Your task to perform on an android device: delete a single message in the gmail app Image 0: 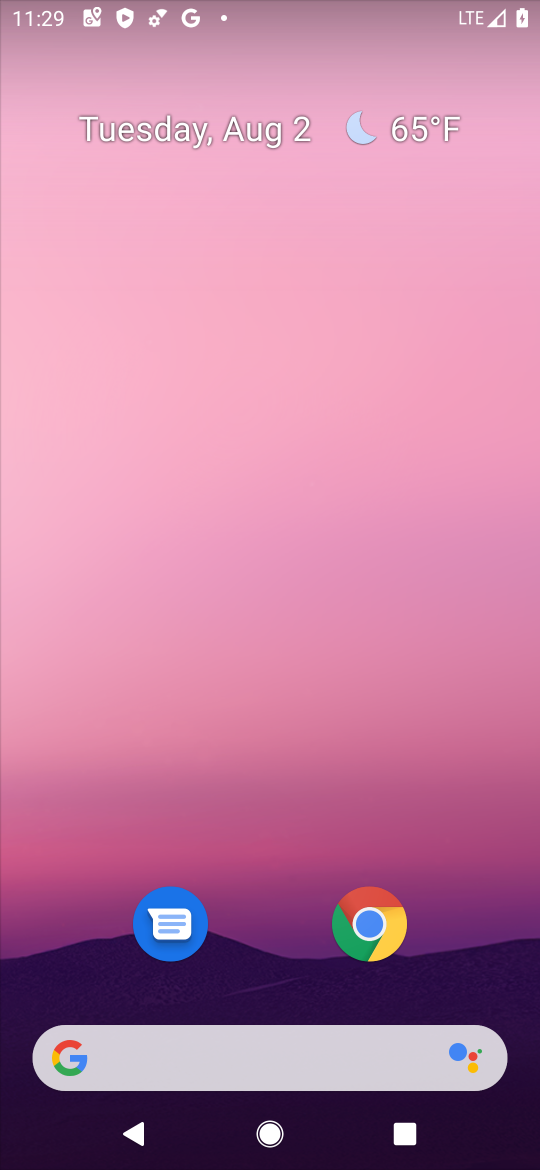
Step 0: drag from (289, 722) to (365, 268)
Your task to perform on an android device: delete a single message in the gmail app Image 1: 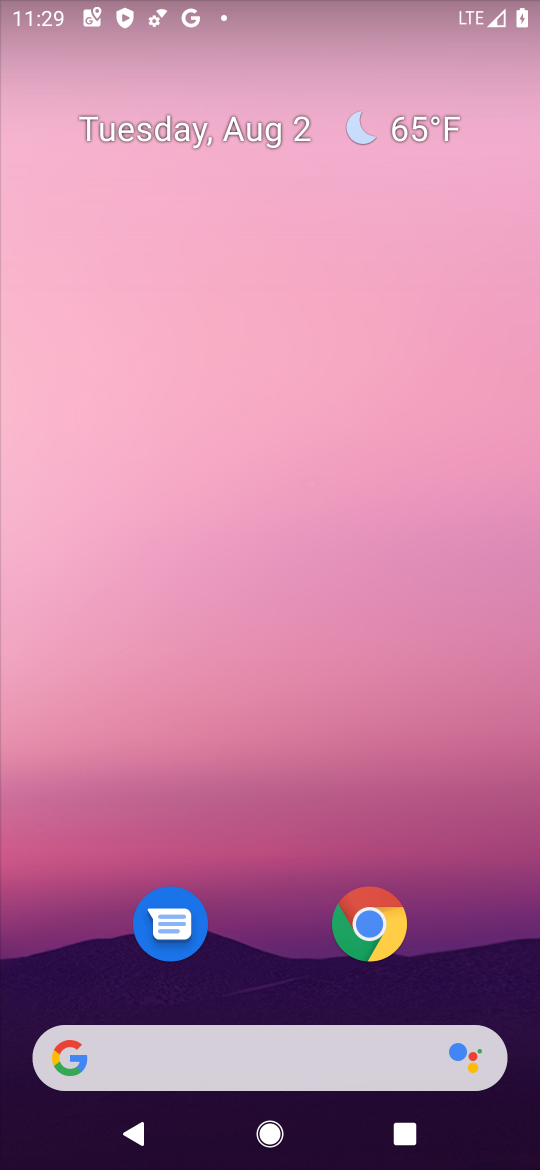
Step 1: drag from (298, 923) to (360, 145)
Your task to perform on an android device: delete a single message in the gmail app Image 2: 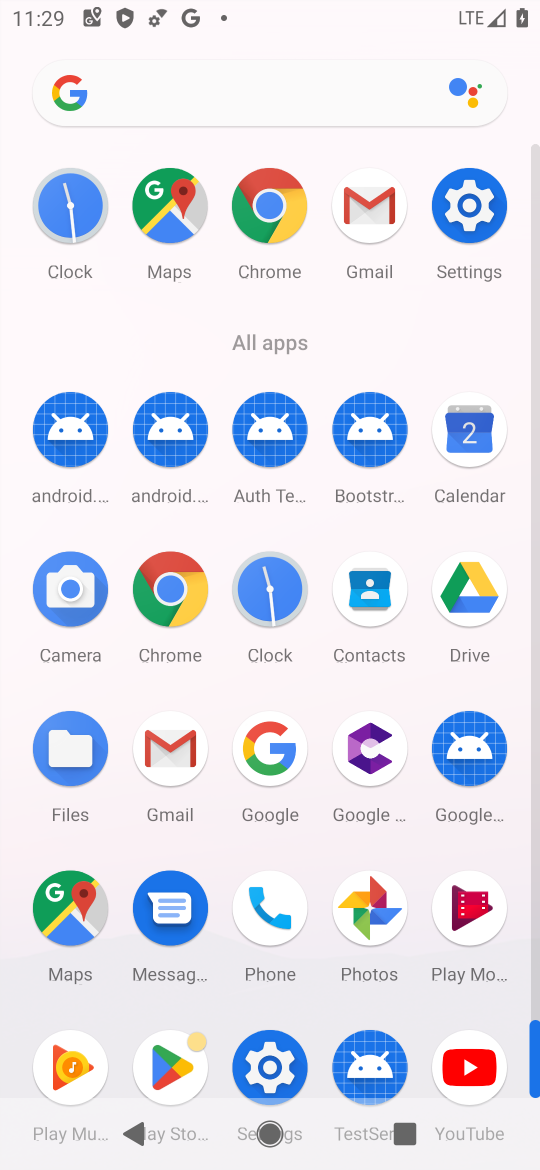
Step 2: click (144, 757)
Your task to perform on an android device: delete a single message in the gmail app Image 3: 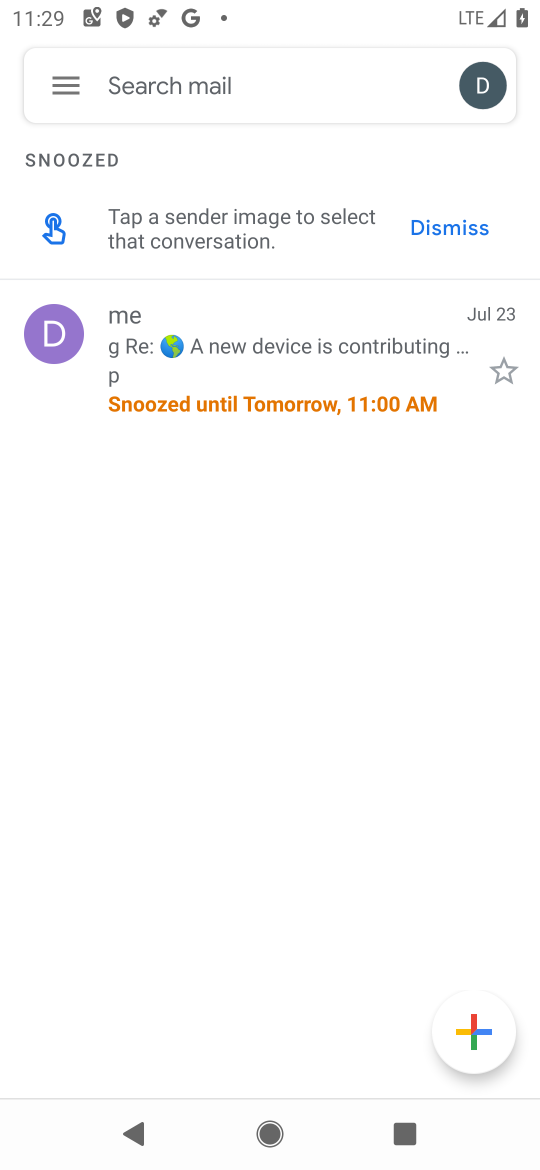
Step 3: click (271, 335)
Your task to perform on an android device: delete a single message in the gmail app Image 4: 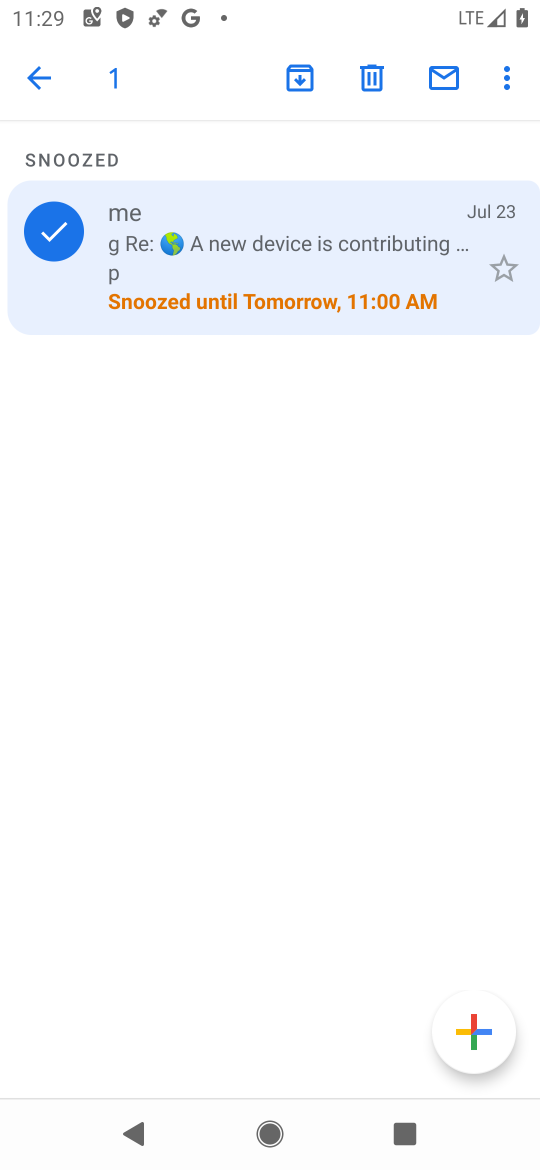
Step 4: click (371, 76)
Your task to perform on an android device: delete a single message in the gmail app Image 5: 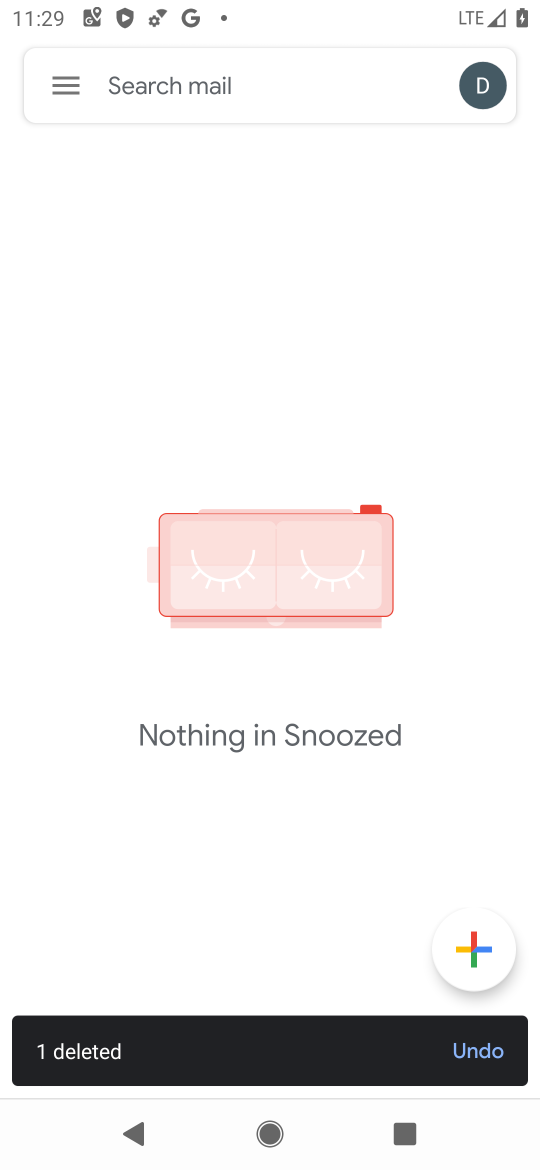
Step 5: click (38, 76)
Your task to perform on an android device: delete a single message in the gmail app Image 6: 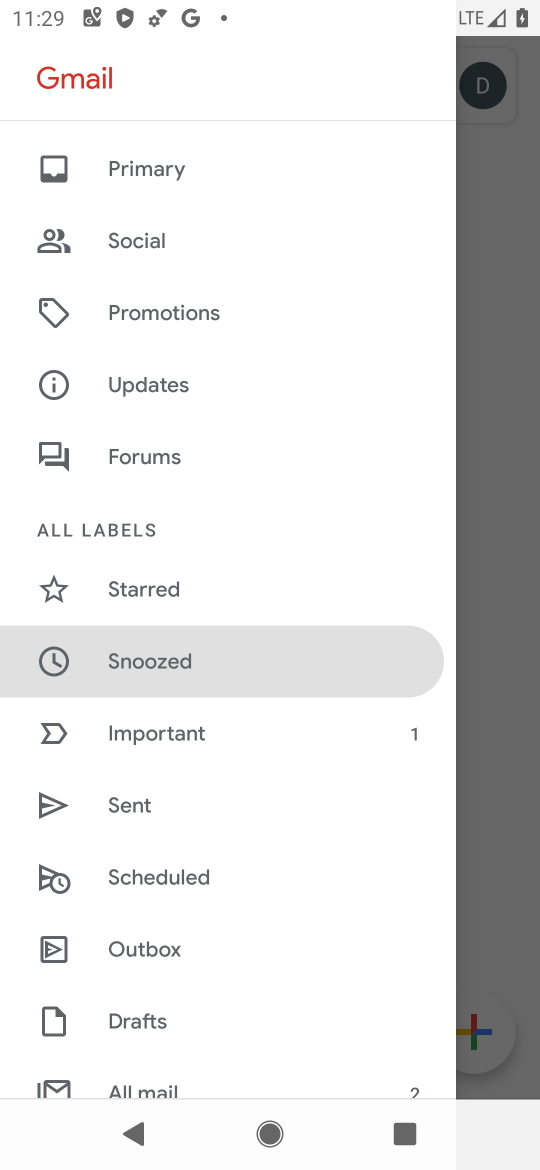
Step 6: drag from (159, 969) to (235, 593)
Your task to perform on an android device: delete a single message in the gmail app Image 7: 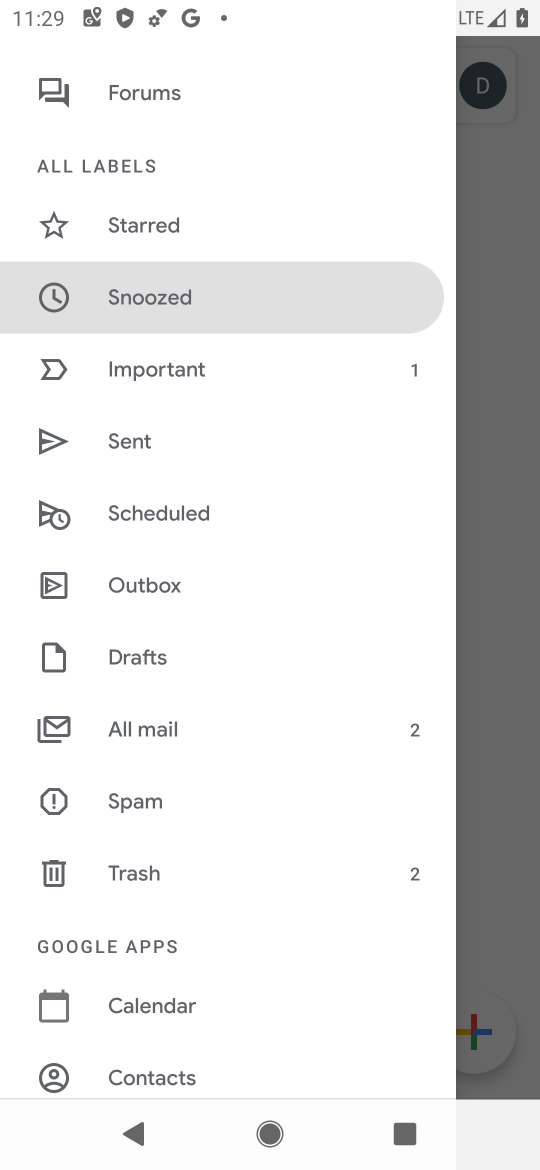
Step 7: click (131, 735)
Your task to perform on an android device: delete a single message in the gmail app Image 8: 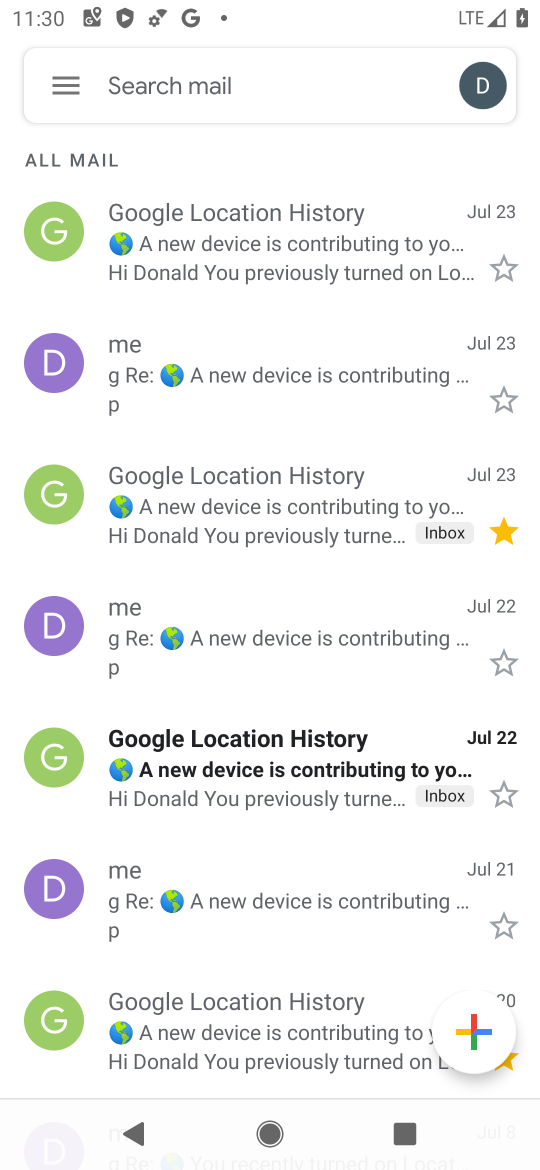
Step 8: click (185, 212)
Your task to perform on an android device: delete a single message in the gmail app Image 9: 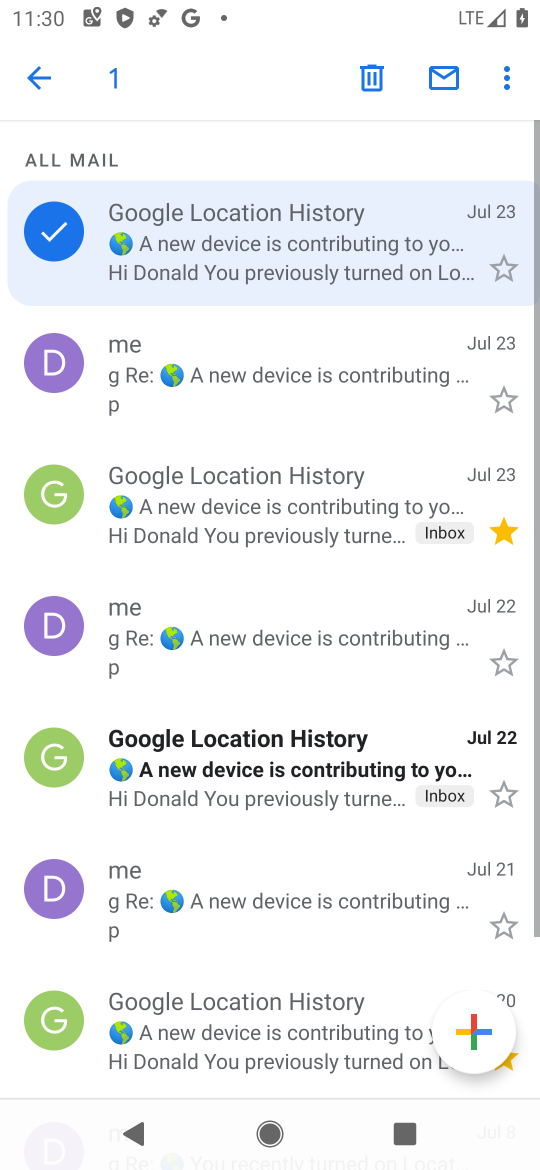
Step 9: click (361, 90)
Your task to perform on an android device: delete a single message in the gmail app Image 10: 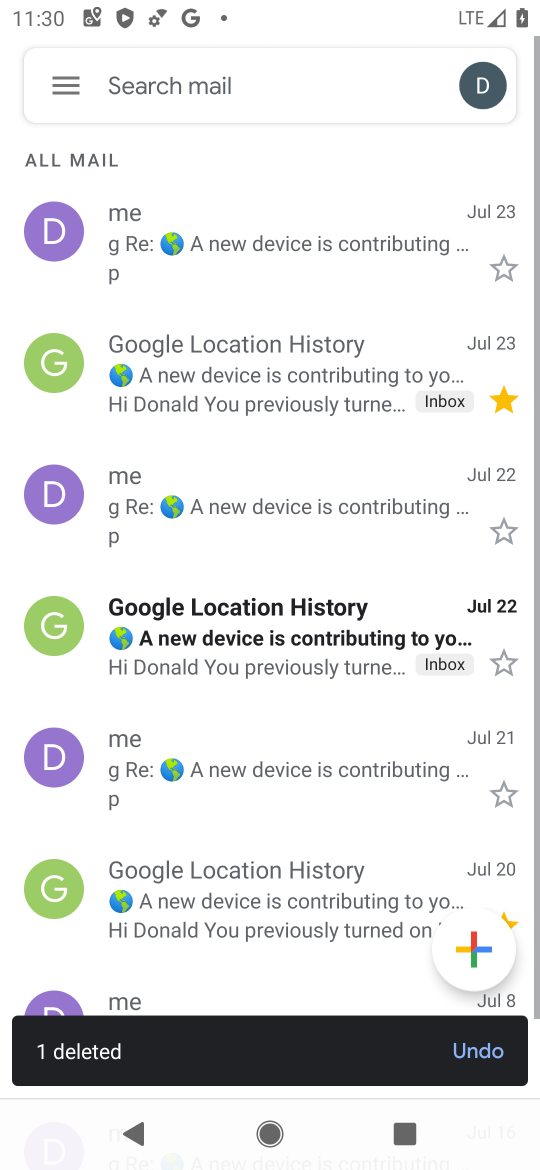
Step 10: task complete